Your task to perform on an android device: check out phone information Image 0: 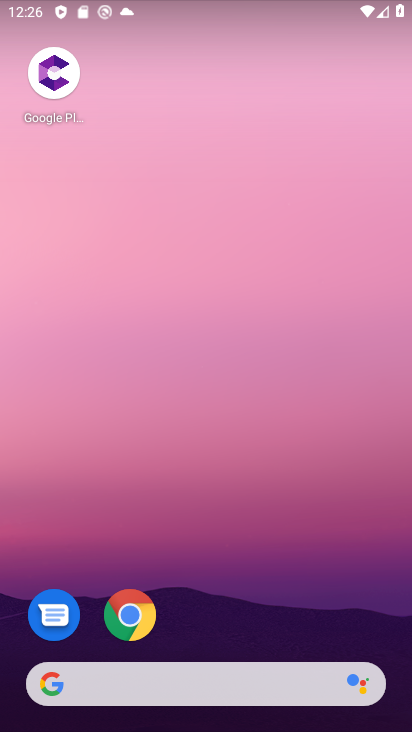
Step 0: drag from (224, 597) to (217, 236)
Your task to perform on an android device: check out phone information Image 1: 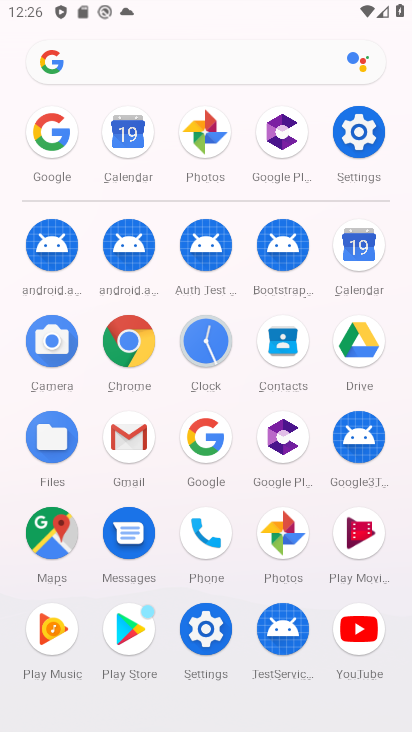
Step 1: click (347, 131)
Your task to perform on an android device: check out phone information Image 2: 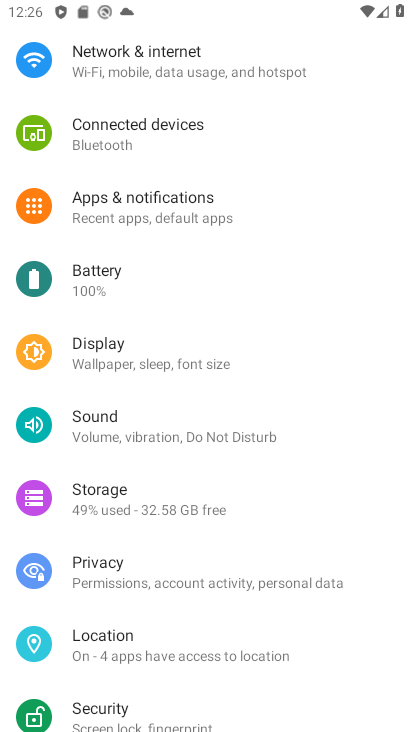
Step 2: drag from (233, 641) to (235, 325)
Your task to perform on an android device: check out phone information Image 3: 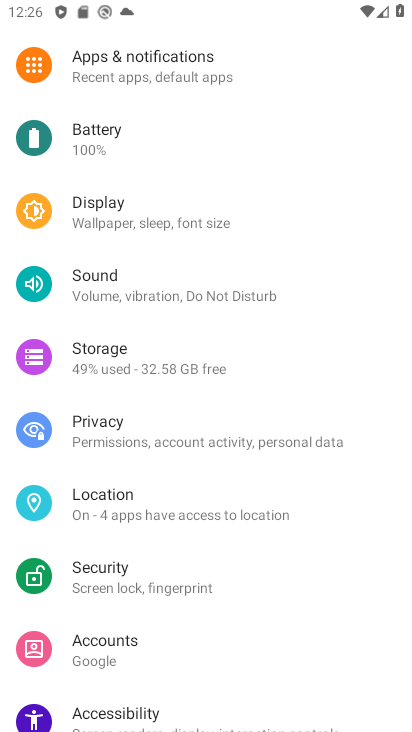
Step 3: drag from (205, 713) to (189, 368)
Your task to perform on an android device: check out phone information Image 4: 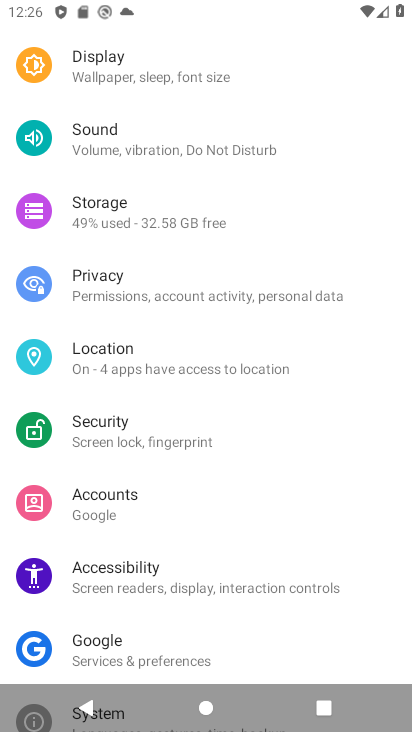
Step 4: drag from (189, 613) to (209, 347)
Your task to perform on an android device: check out phone information Image 5: 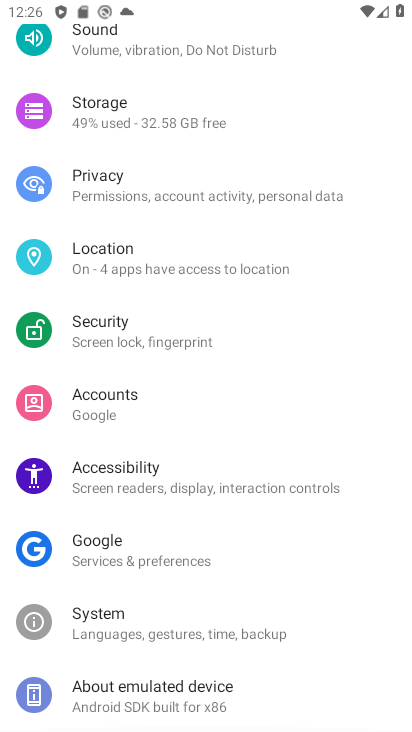
Step 5: drag from (202, 647) to (191, 396)
Your task to perform on an android device: check out phone information Image 6: 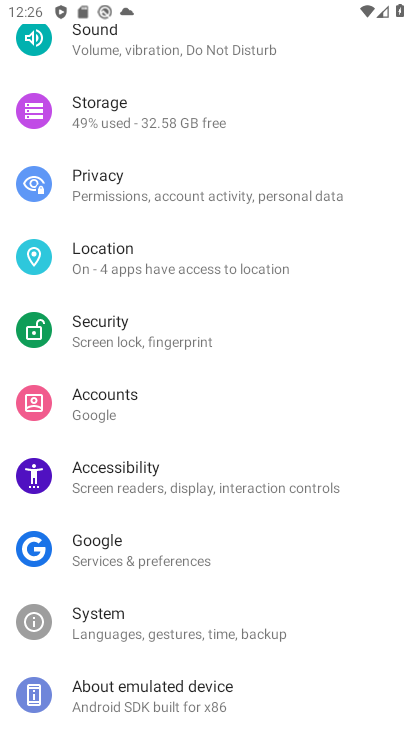
Step 6: click (191, 679)
Your task to perform on an android device: check out phone information Image 7: 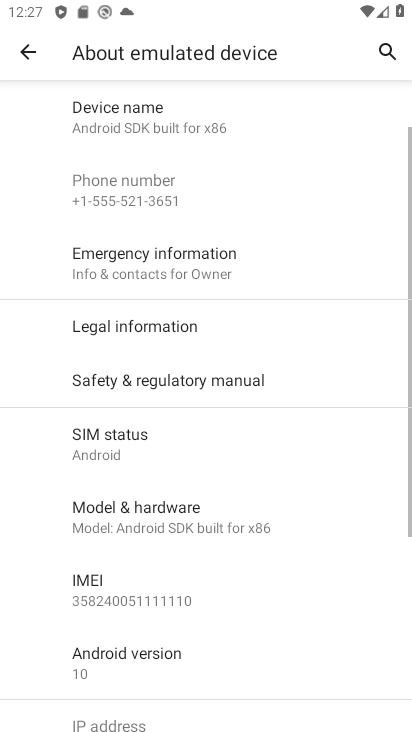
Step 7: task complete